Your task to perform on an android device: check android version Image 0: 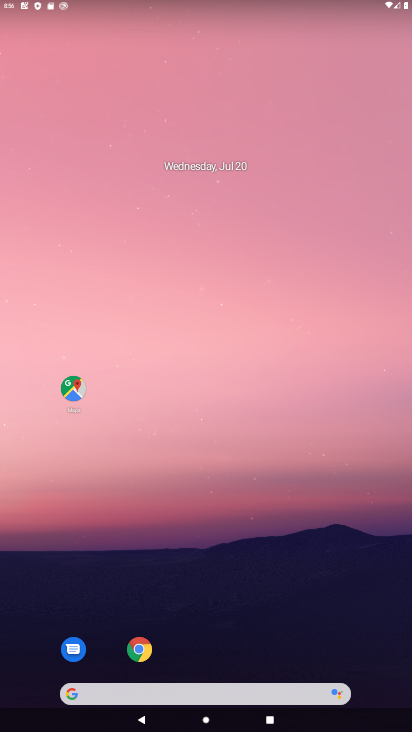
Step 0: drag from (273, 646) to (275, 12)
Your task to perform on an android device: check android version Image 1: 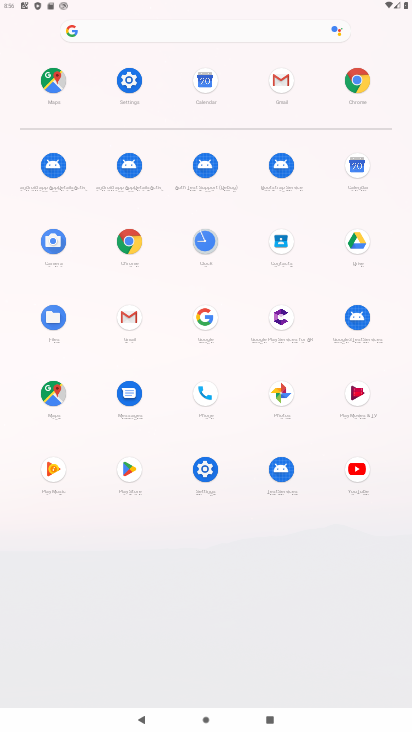
Step 1: click (135, 82)
Your task to perform on an android device: check android version Image 2: 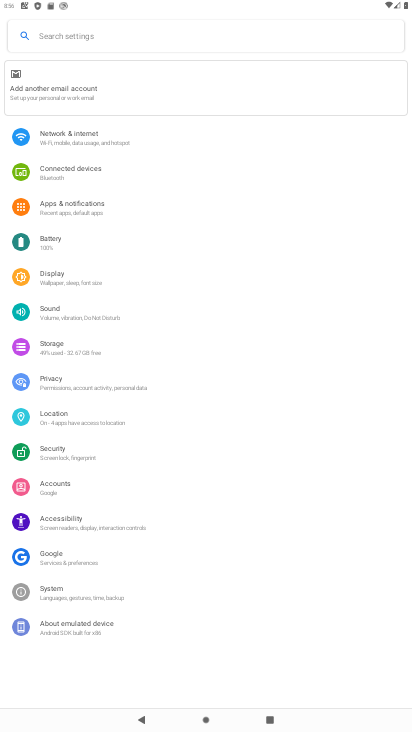
Step 2: task complete